Your task to perform on an android device: Set the phone to "Do not disturb". Image 0: 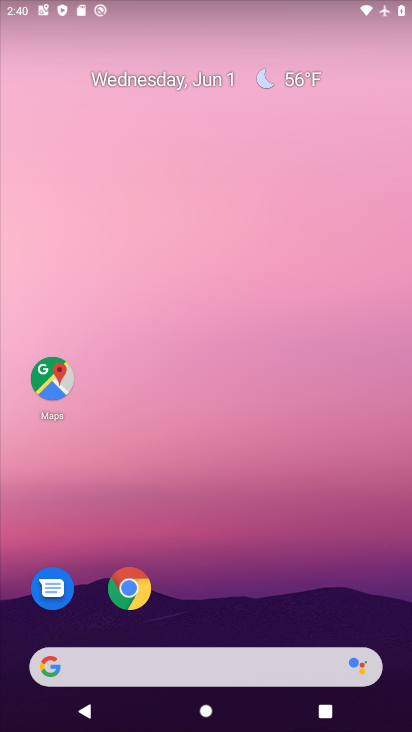
Step 0: click (231, 17)
Your task to perform on an android device: Set the phone to "Do not disturb". Image 1: 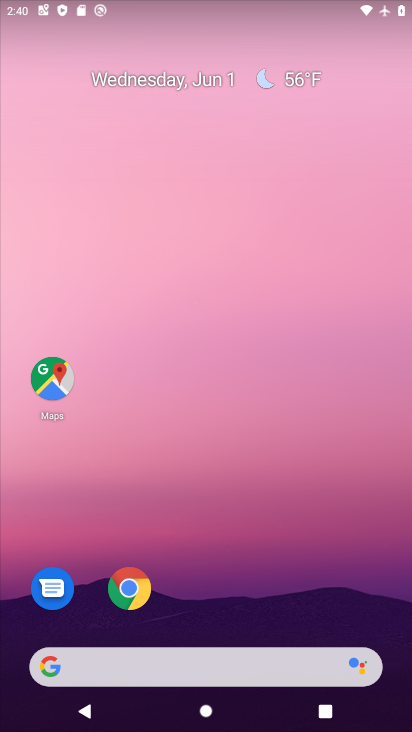
Step 1: drag from (287, 529) to (145, 0)
Your task to perform on an android device: Set the phone to "Do not disturb". Image 2: 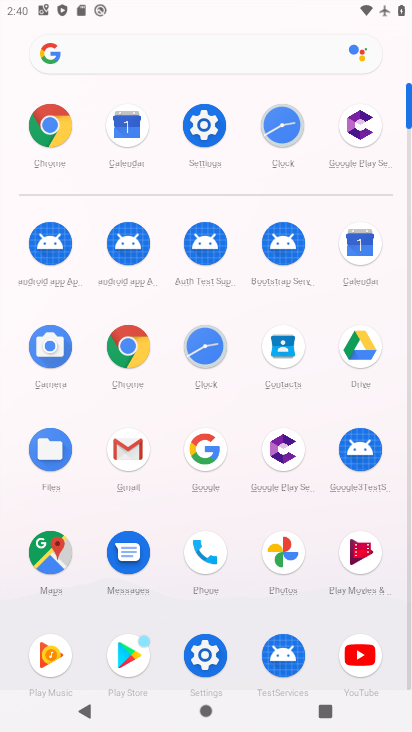
Step 2: click (200, 123)
Your task to perform on an android device: Set the phone to "Do not disturb". Image 3: 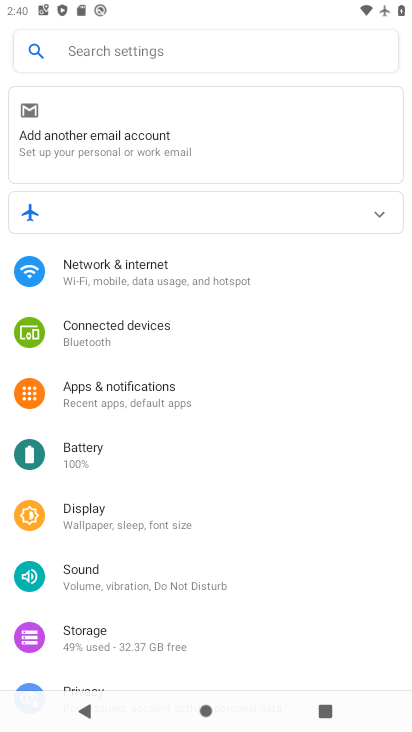
Step 3: click (216, 398)
Your task to perform on an android device: Set the phone to "Do not disturb". Image 4: 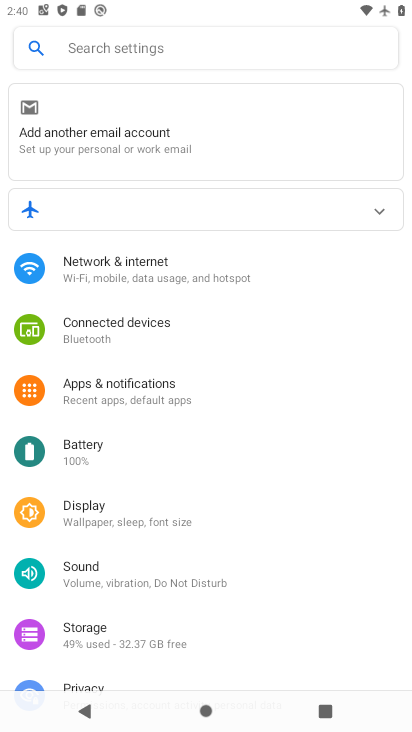
Step 4: click (117, 562)
Your task to perform on an android device: Set the phone to "Do not disturb". Image 5: 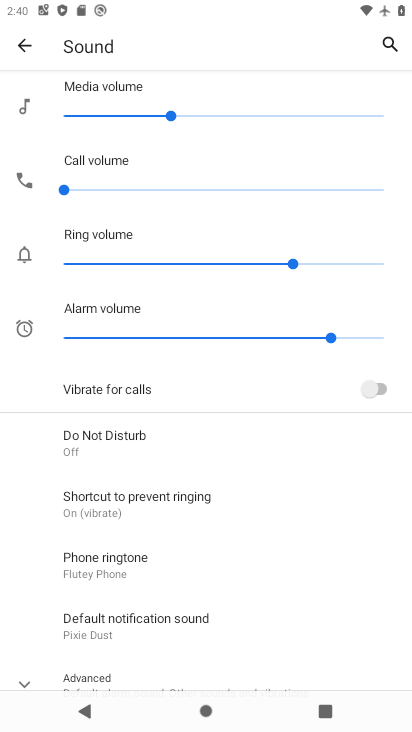
Step 5: click (161, 445)
Your task to perform on an android device: Set the phone to "Do not disturb". Image 6: 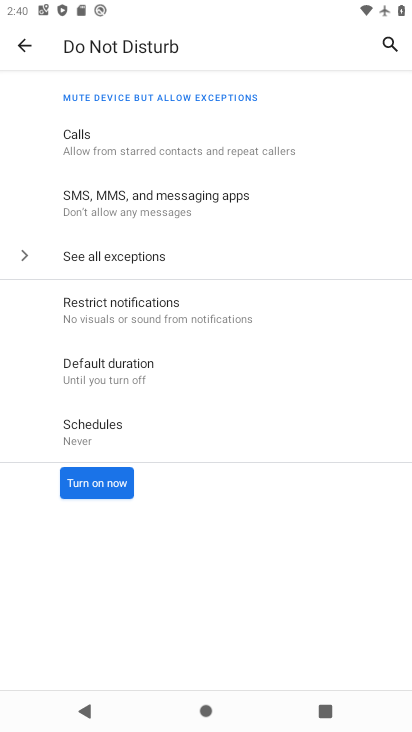
Step 6: click (96, 492)
Your task to perform on an android device: Set the phone to "Do not disturb". Image 7: 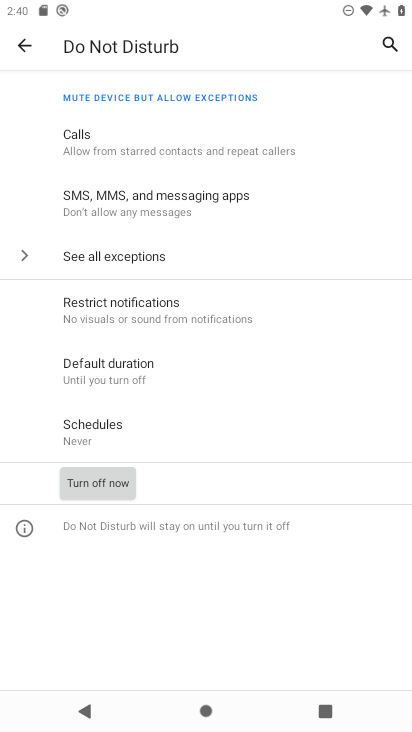
Step 7: task complete